Your task to perform on an android device: toggle sleep mode Image 0: 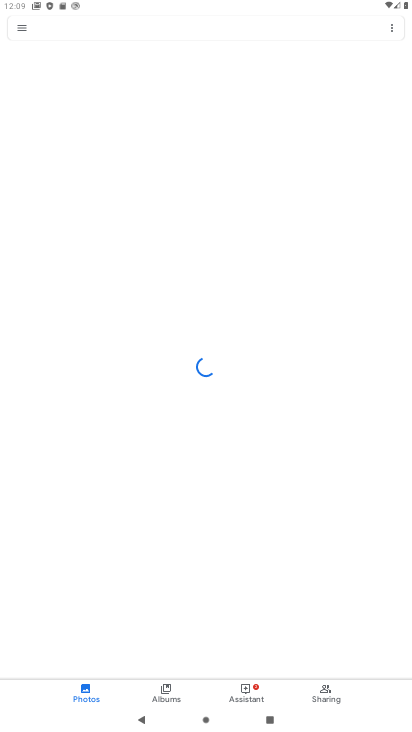
Step 0: press home button
Your task to perform on an android device: toggle sleep mode Image 1: 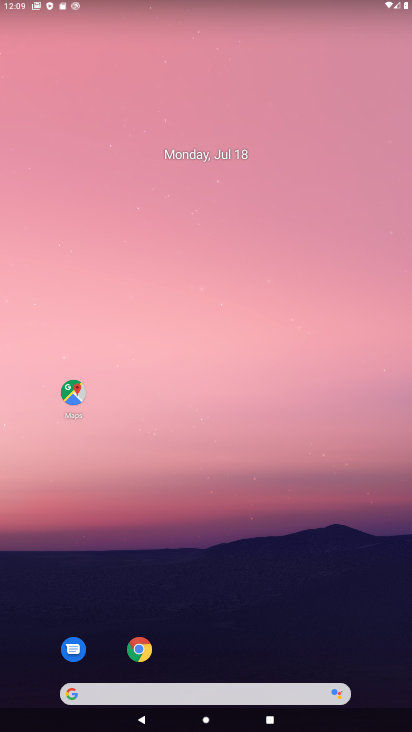
Step 1: drag from (368, 658) to (303, 316)
Your task to perform on an android device: toggle sleep mode Image 2: 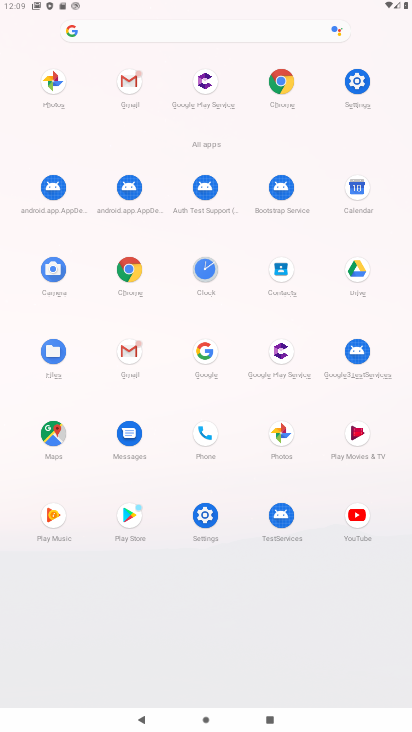
Step 2: click (207, 514)
Your task to perform on an android device: toggle sleep mode Image 3: 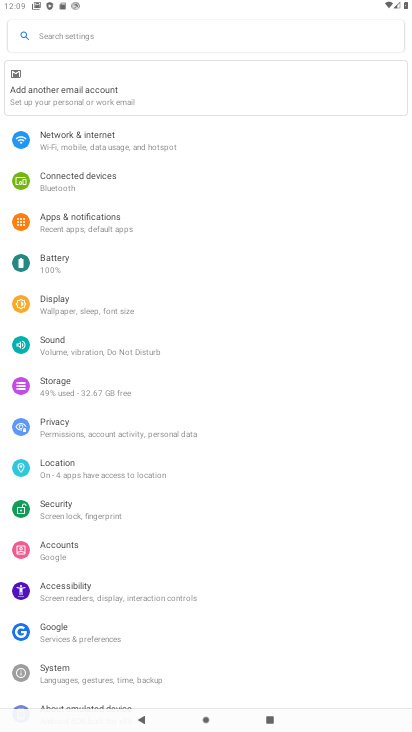
Step 3: click (64, 300)
Your task to perform on an android device: toggle sleep mode Image 4: 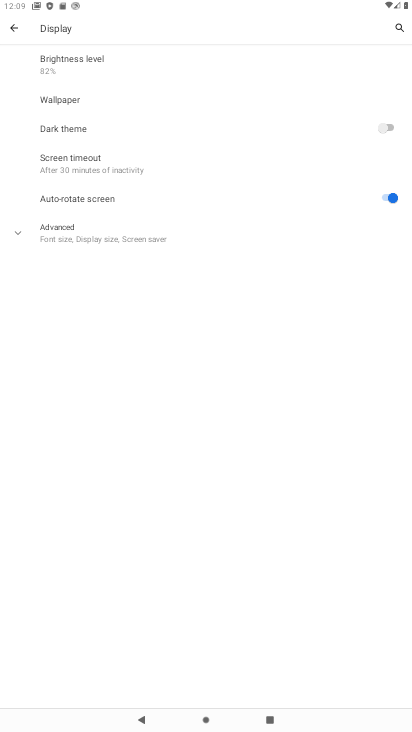
Step 4: click (18, 235)
Your task to perform on an android device: toggle sleep mode Image 5: 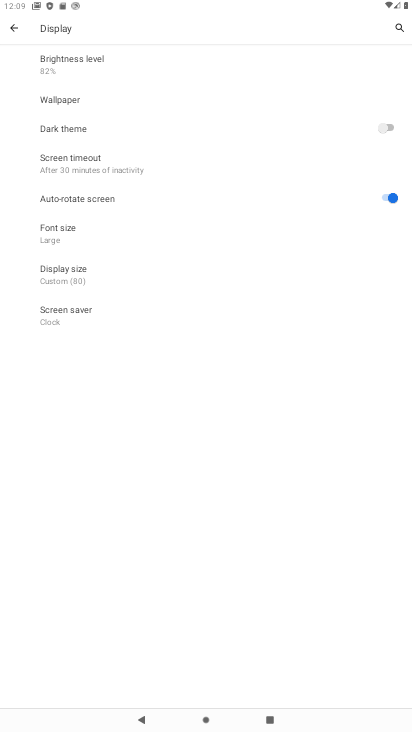
Step 5: task complete